Your task to perform on an android device: What time is it in San Francisco? Image 0: 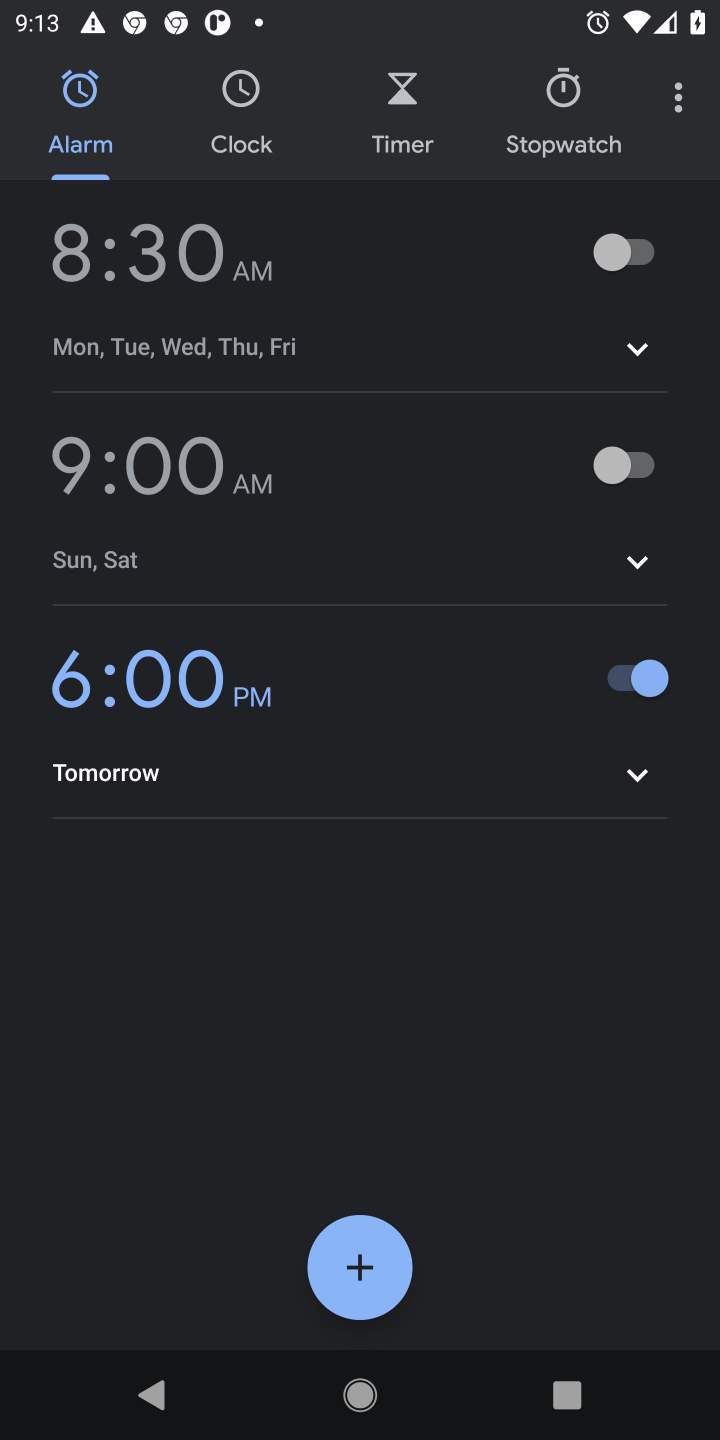
Step 0: press home button
Your task to perform on an android device: What time is it in San Francisco? Image 1: 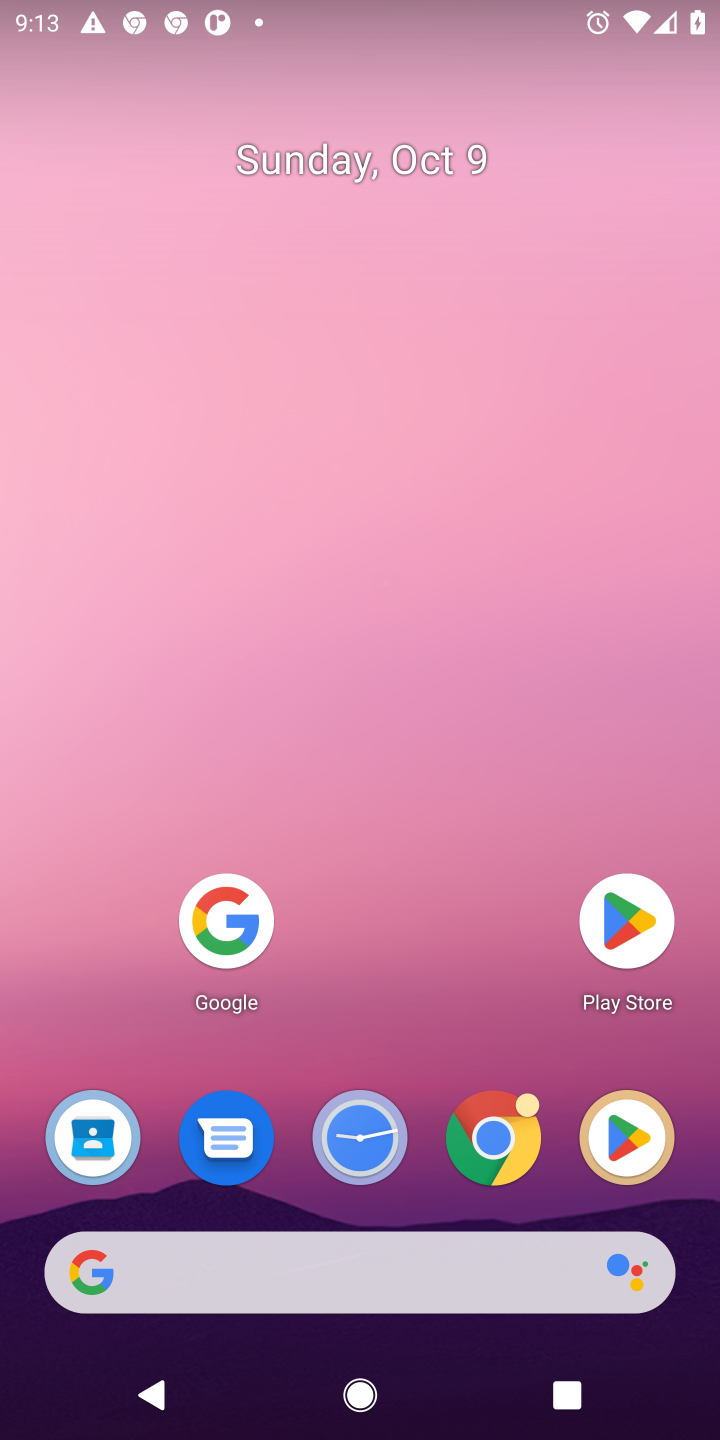
Step 1: click (240, 893)
Your task to perform on an android device: What time is it in San Francisco? Image 2: 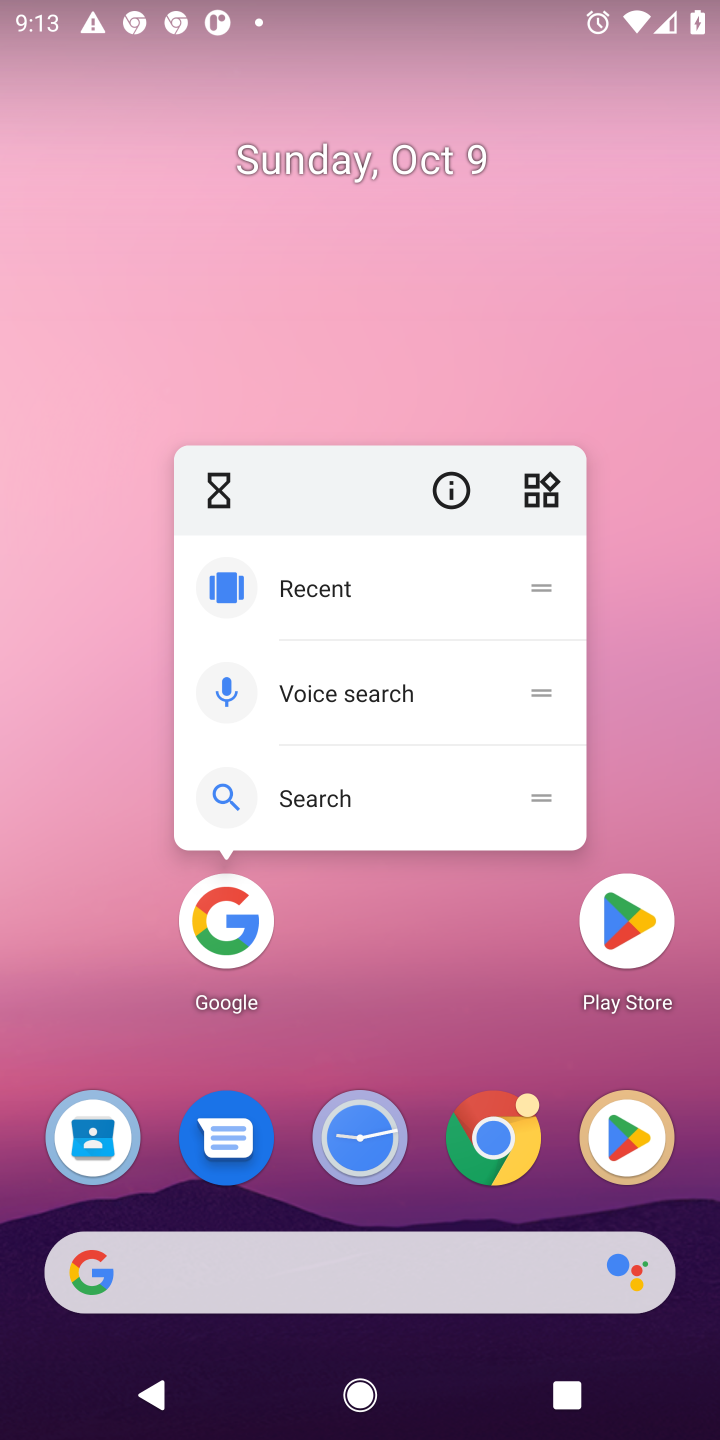
Step 2: click (243, 935)
Your task to perform on an android device: What time is it in San Francisco? Image 3: 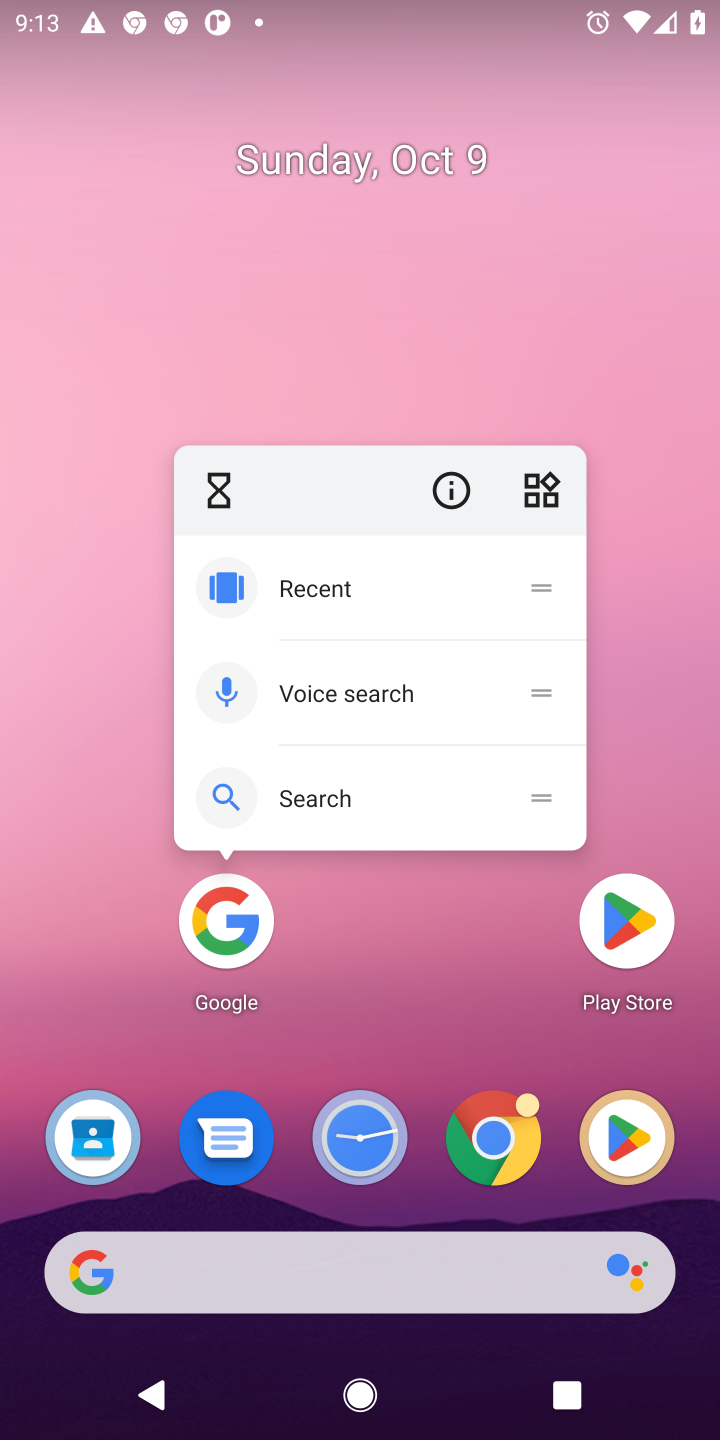
Step 3: click (243, 935)
Your task to perform on an android device: What time is it in San Francisco? Image 4: 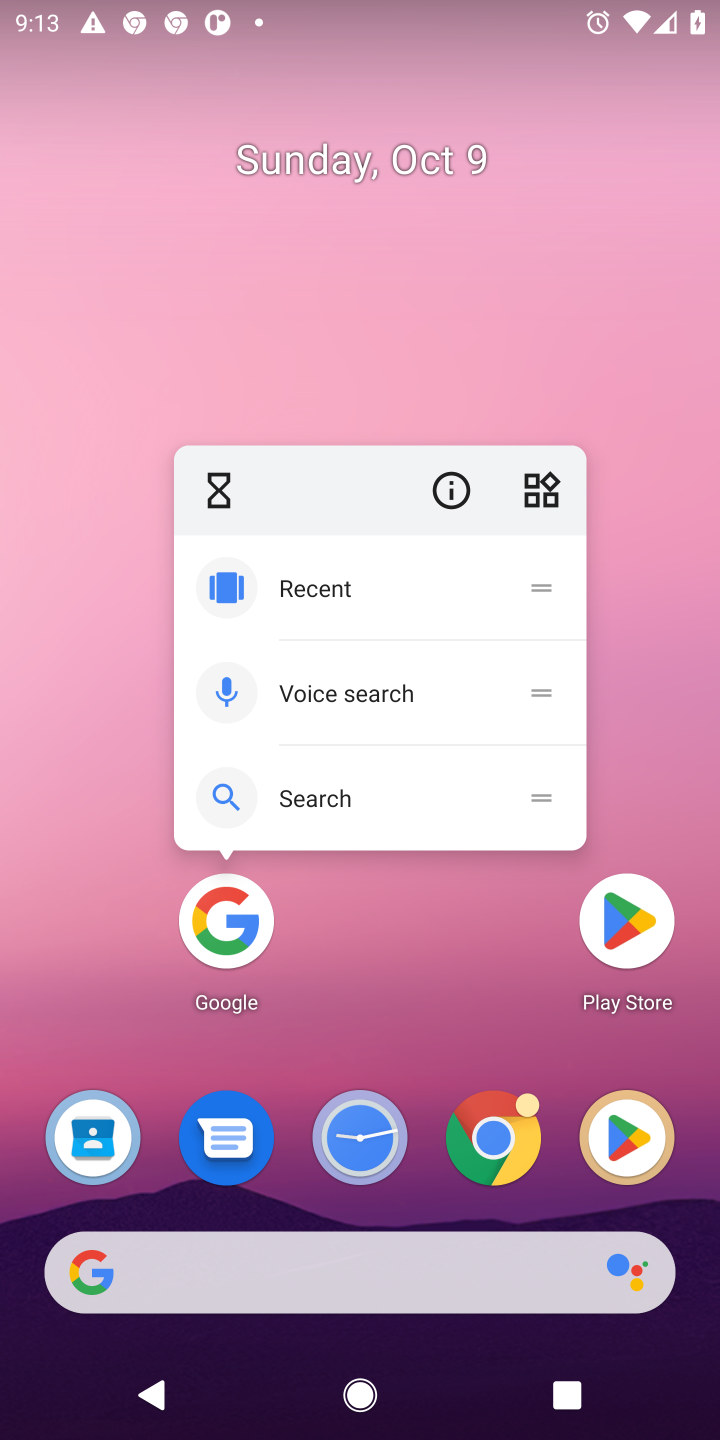
Step 4: click (240, 931)
Your task to perform on an android device: What time is it in San Francisco? Image 5: 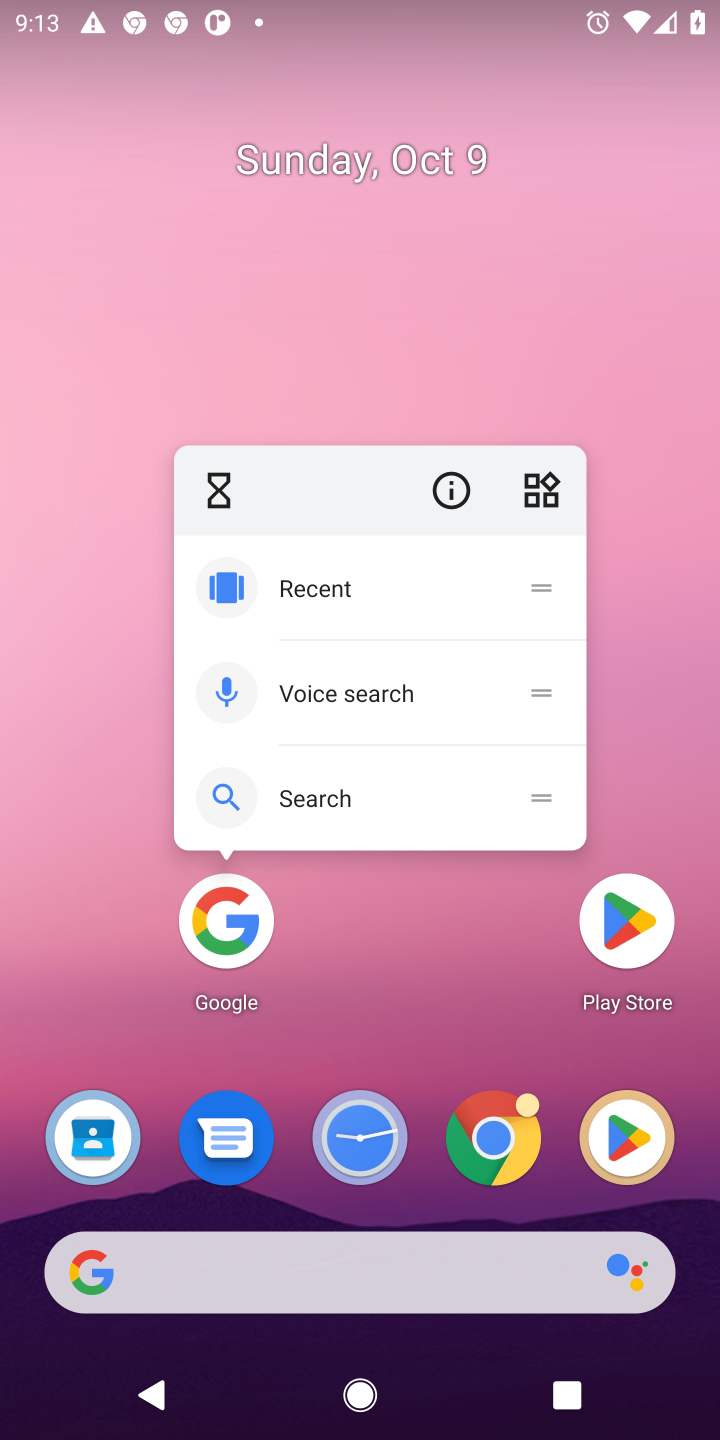
Step 5: click (240, 931)
Your task to perform on an android device: What time is it in San Francisco? Image 6: 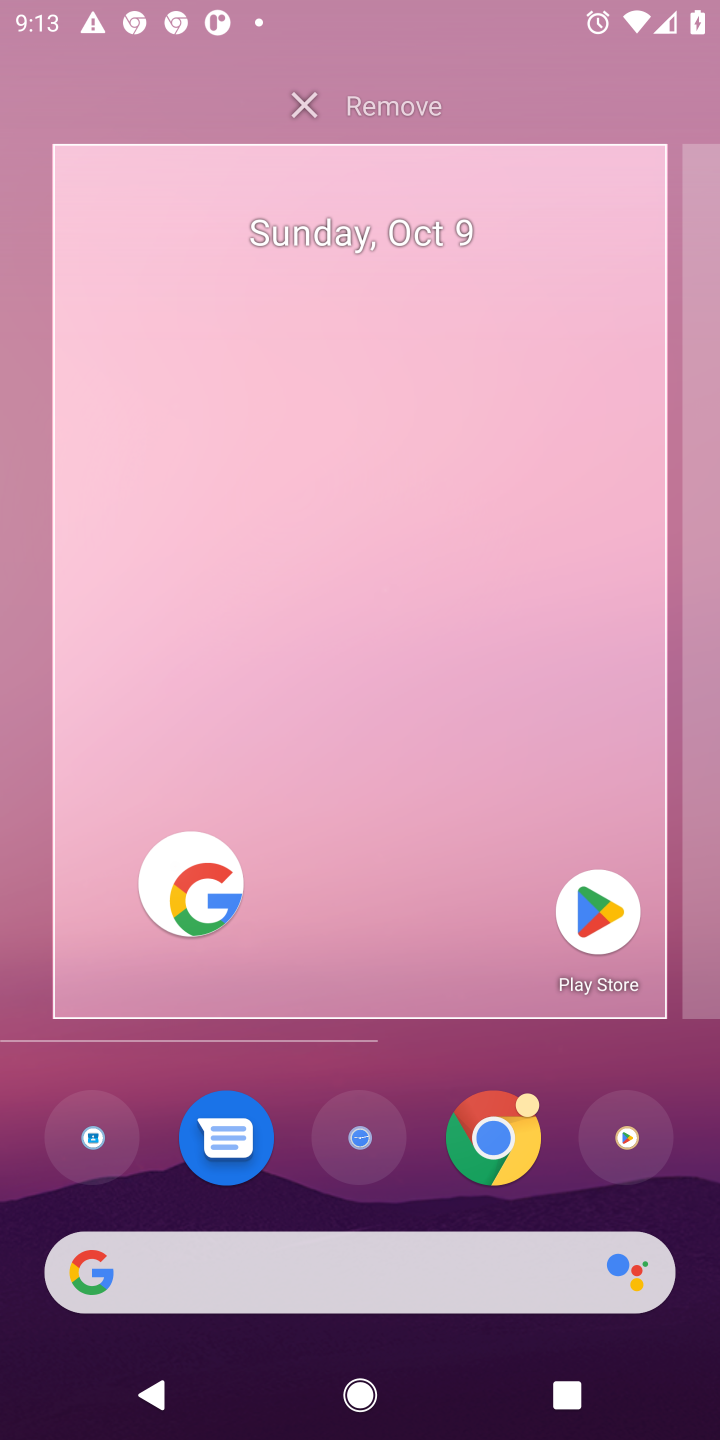
Step 6: click (204, 894)
Your task to perform on an android device: What time is it in San Francisco? Image 7: 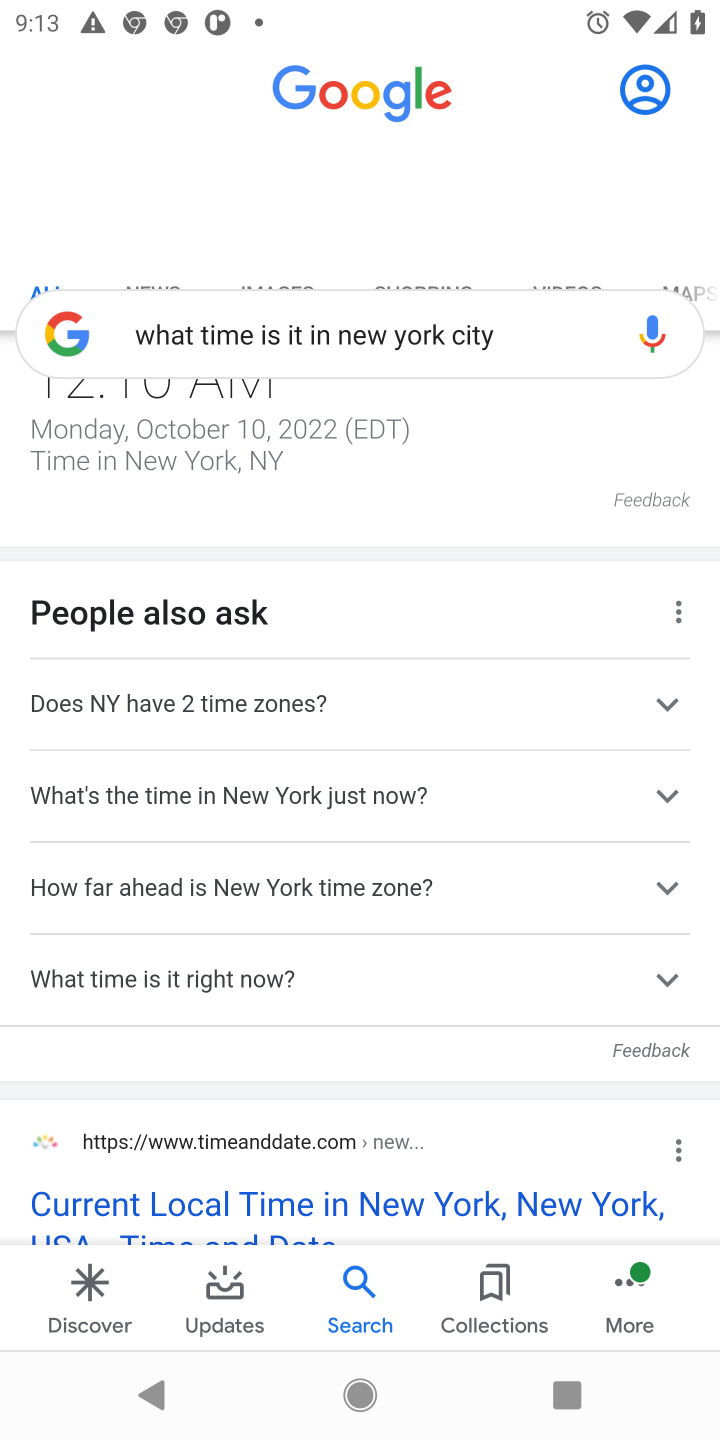
Step 7: click (476, 326)
Your task to perform on an android device: What time is it in San Francisco? Image 8: 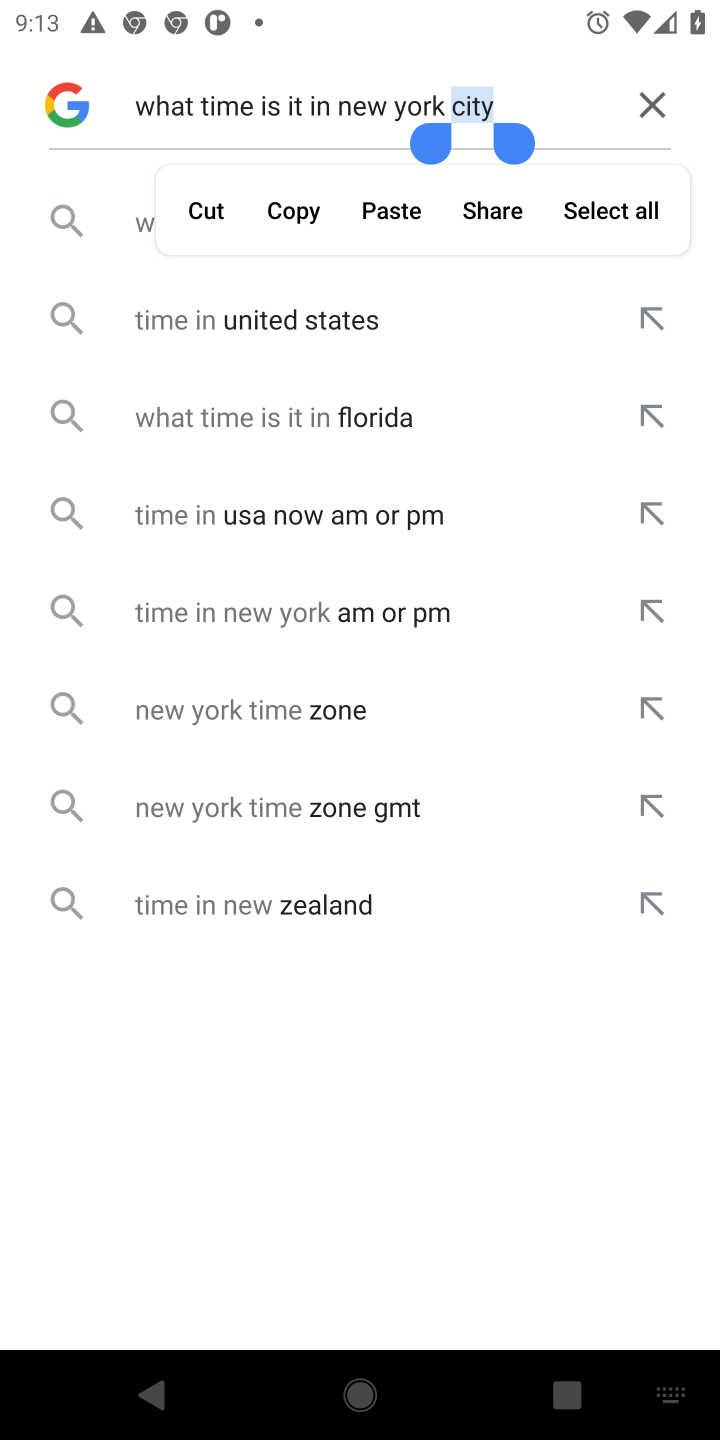
Step 8: click (660, 111)
Your task to perform on an android device: What time is it in San Francisco? Image 9: 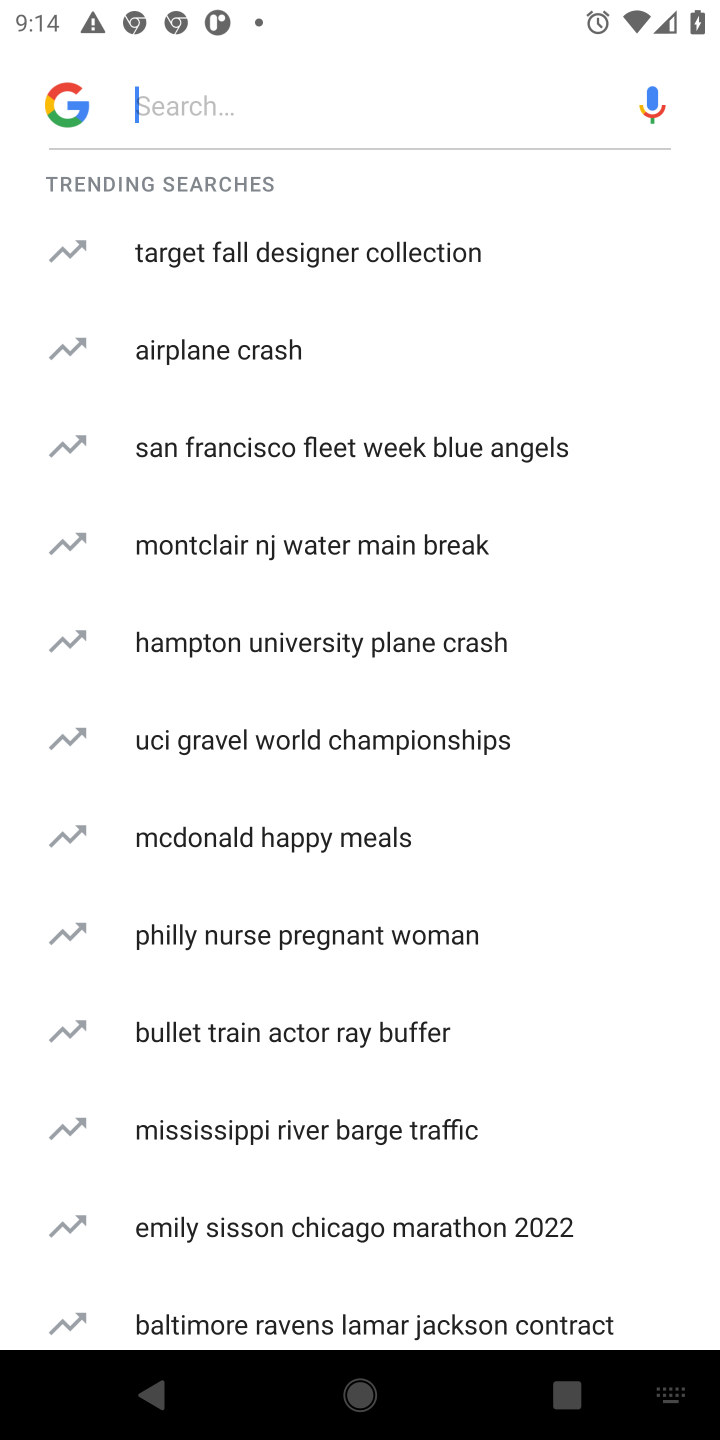
Step 9: click (403, 105)
Your task to perform on an android device: What time is it in San Francisco? Image 10: 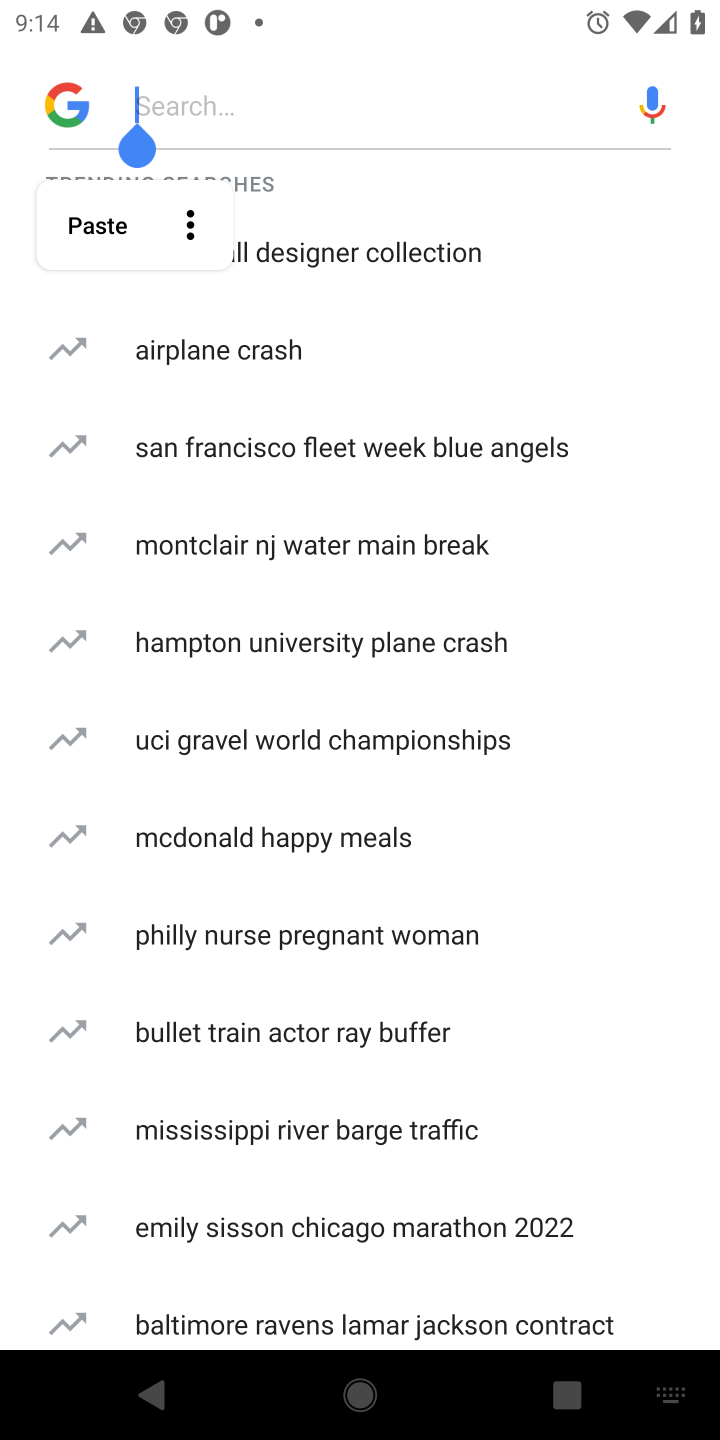
Step 10: type "What time is it in San Francisco? "
Your task to perform on an android device: What time is it in San Francisco? Image 11: 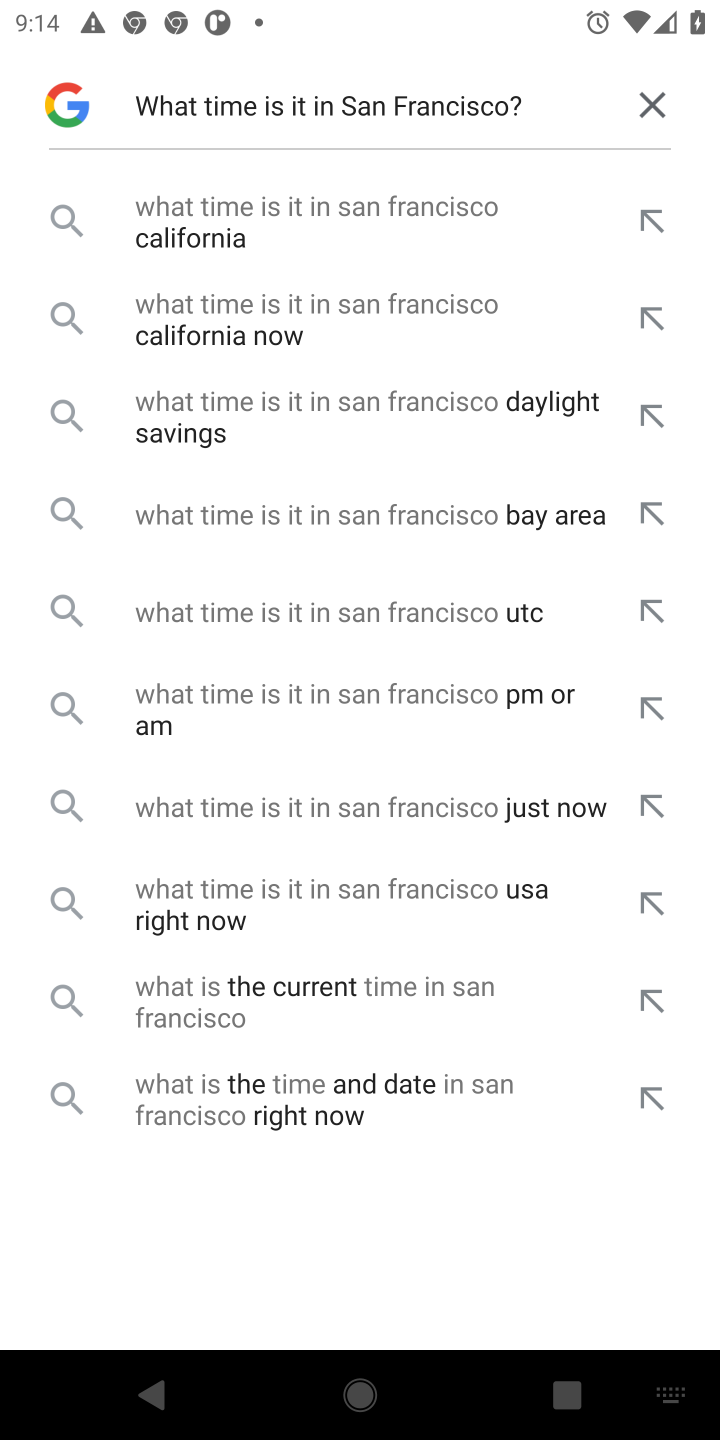
Step 11: click (306, 207)
Your task to perform on an android device: What time is it in San Francisco? Image 12: 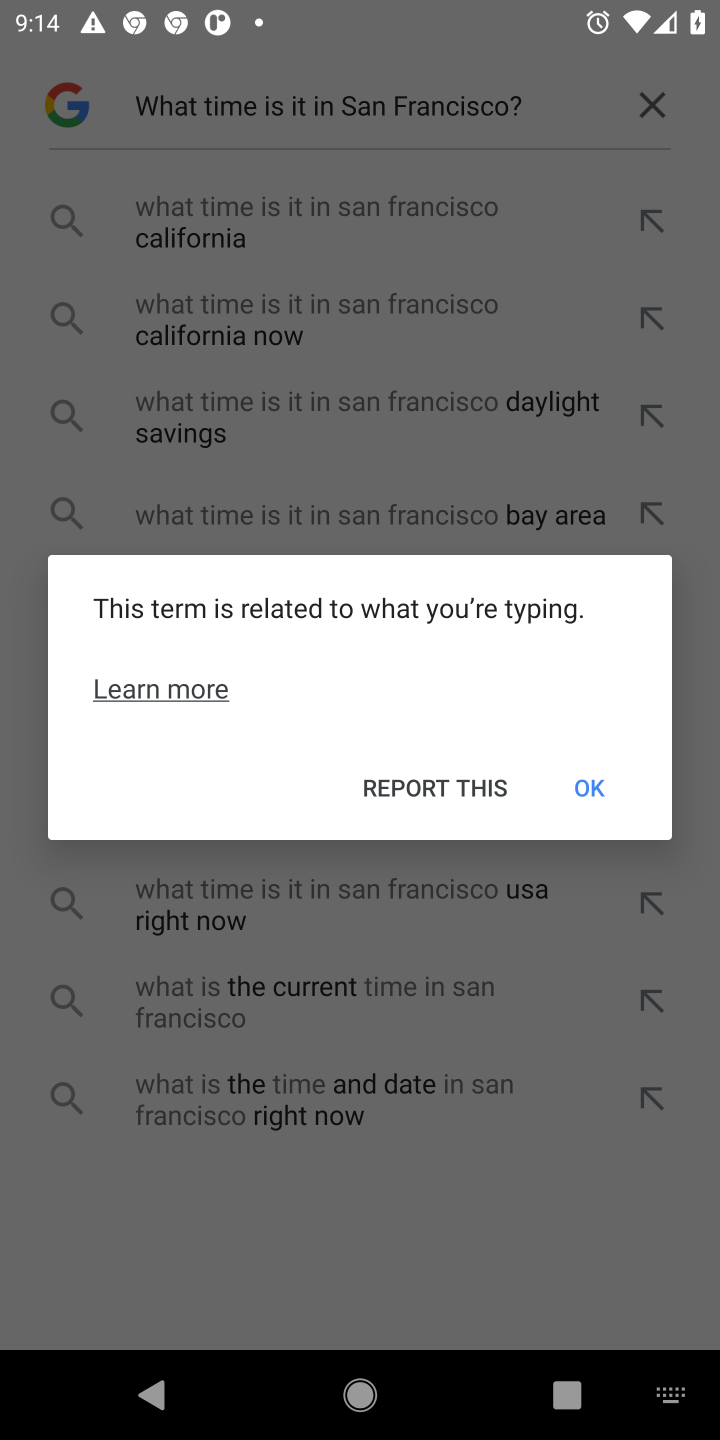
Step 12: click (604, 781)
Your task to perform on an android device: What time is it in San Francisco? Image 13: 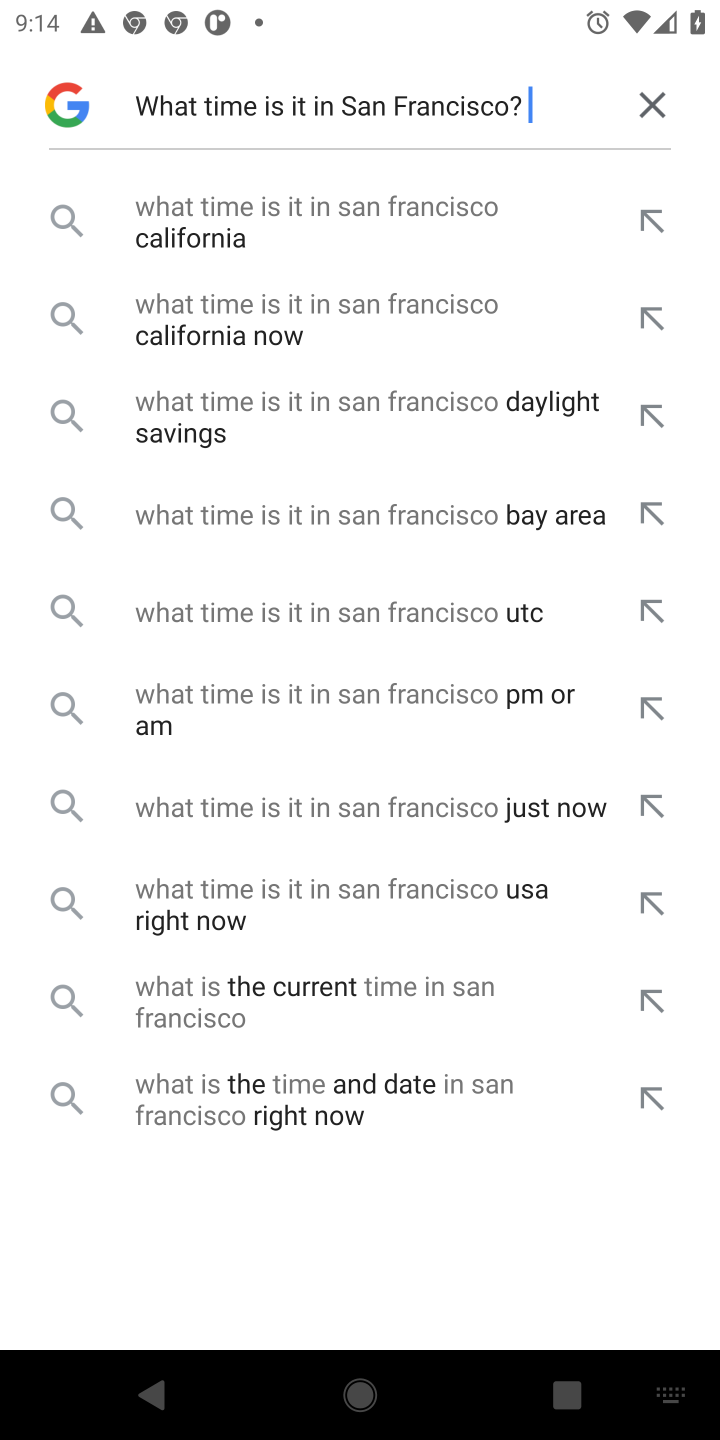
Step 13: click (182, 226)
Your task to perform on an android device: What time is it in San Francisco? Image 14: 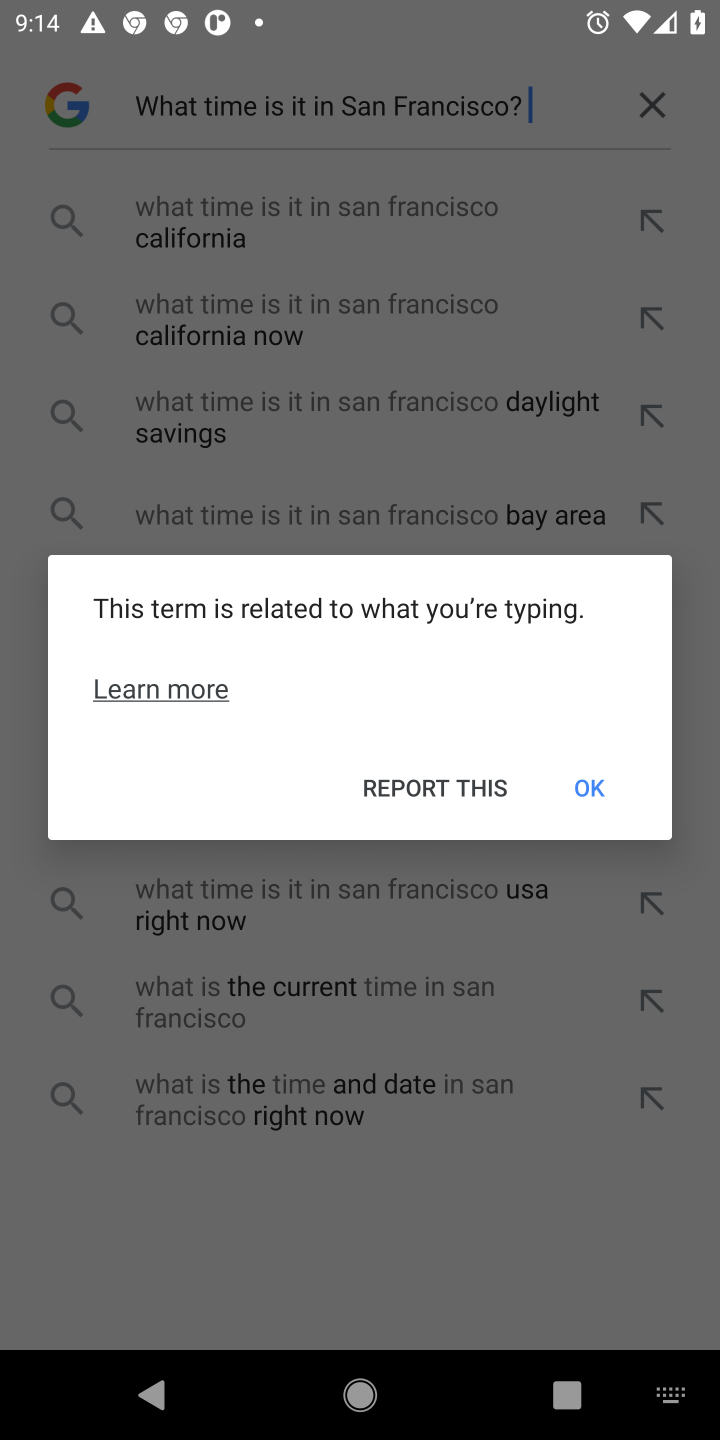
Step 14: click (588, 793)
Your task to perform on an android device: What time is it in San Francisco? Image 15: 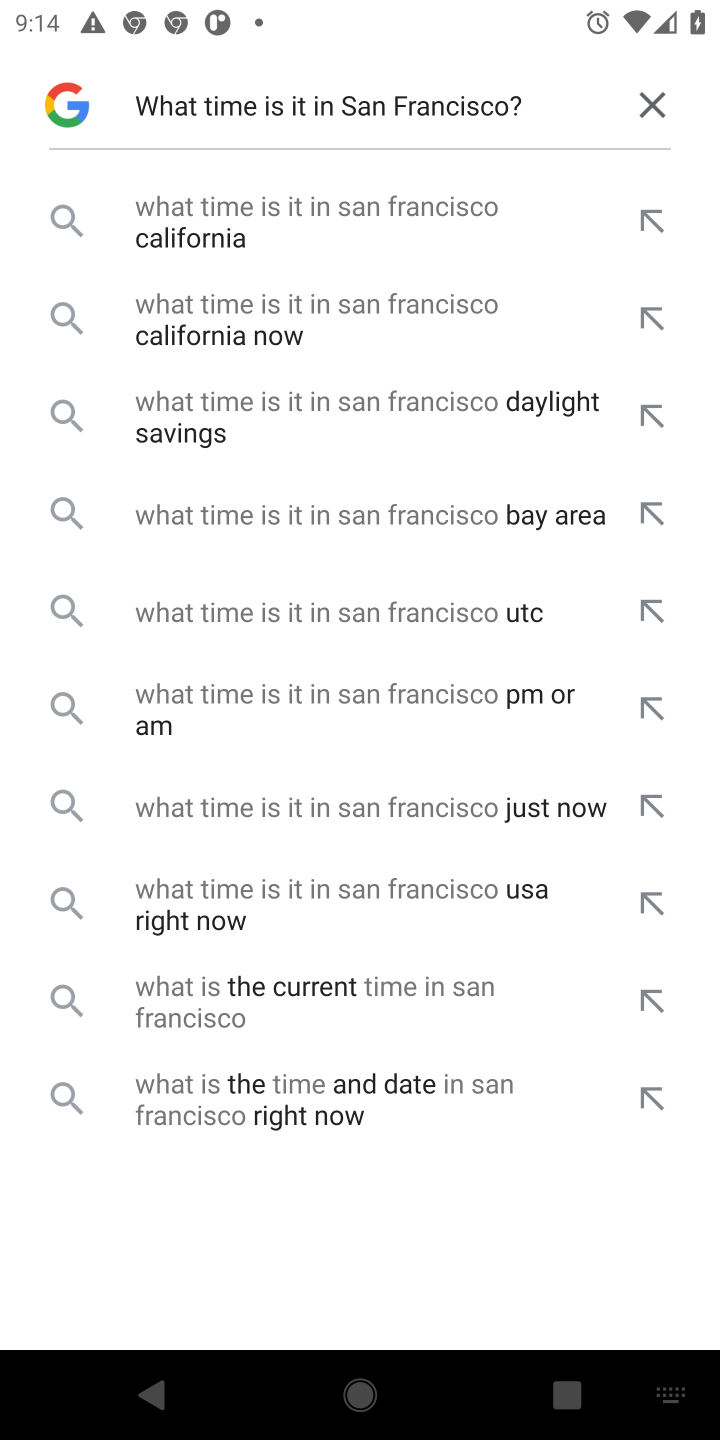
Step 15: click (239, 339)
Your task to perform on an android device: What time is it in San Francisco? Image 16: 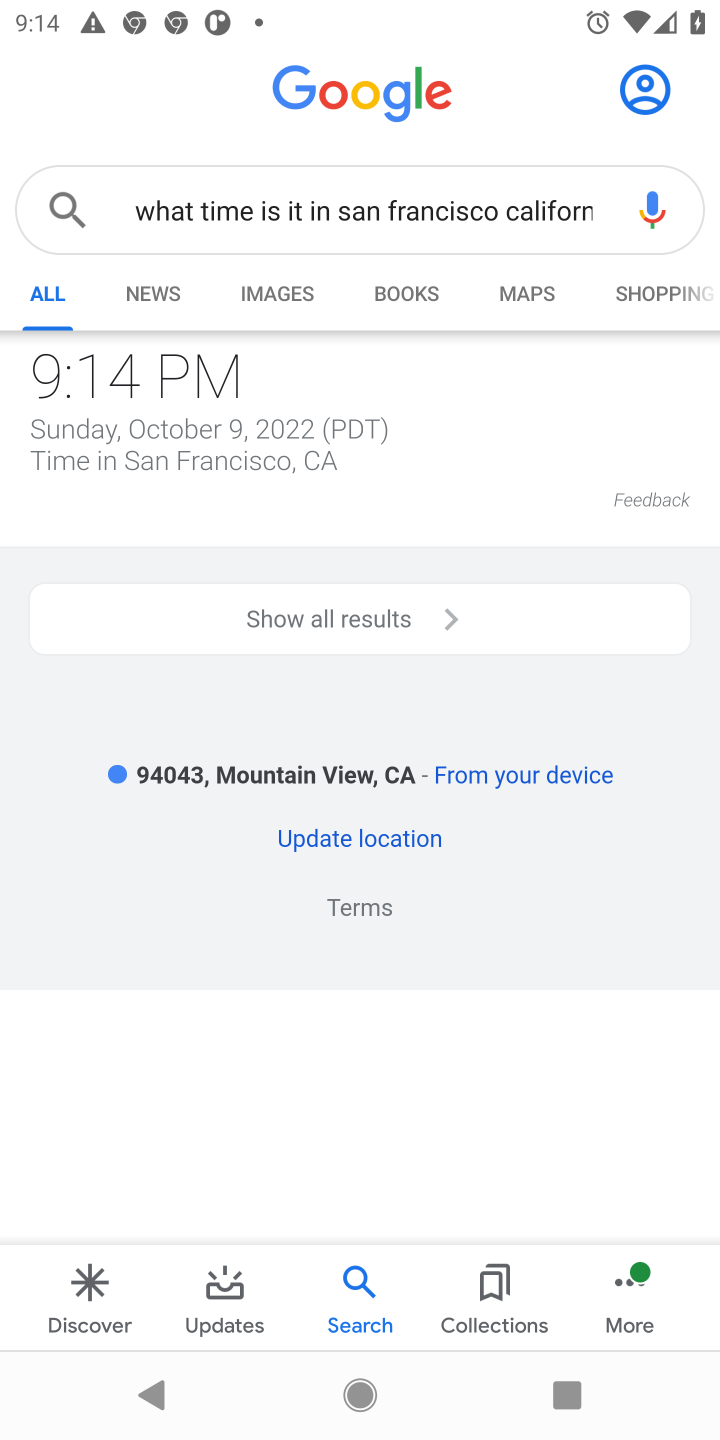
Step 16: task complete